Your task to perform on an android device: Open my contact list Image 0: 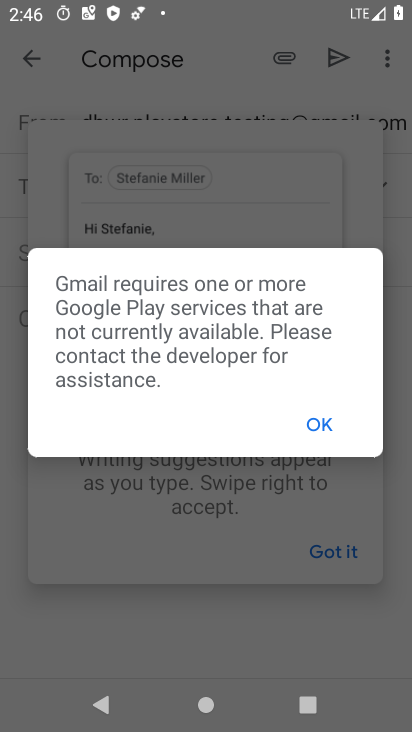
Step 0: click (309, 423)
Your task to perform on an android device: Open my contact list Image 1: 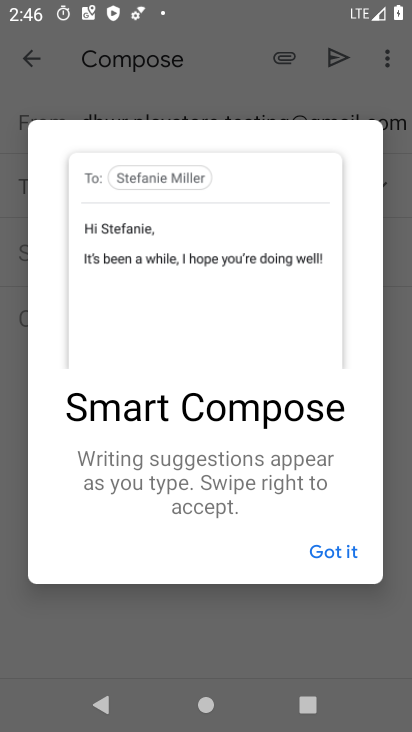
Step 1: click (327, 536)
Your task to perform on an android device: Open my contact list Image 2: 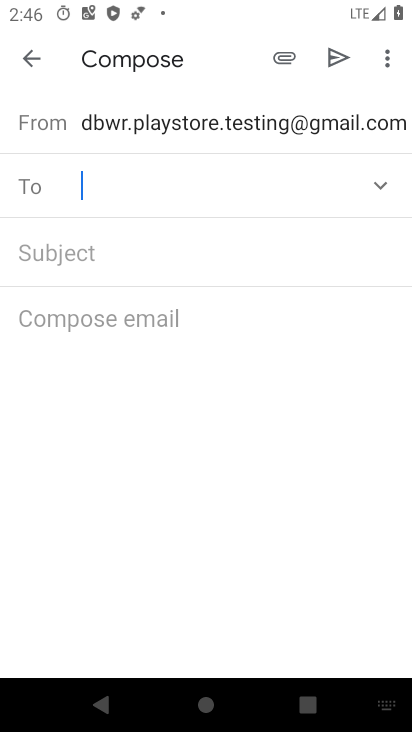
Step 2: click (34, 72)
Your task to perform on an android device: Open my contact list Image 3: 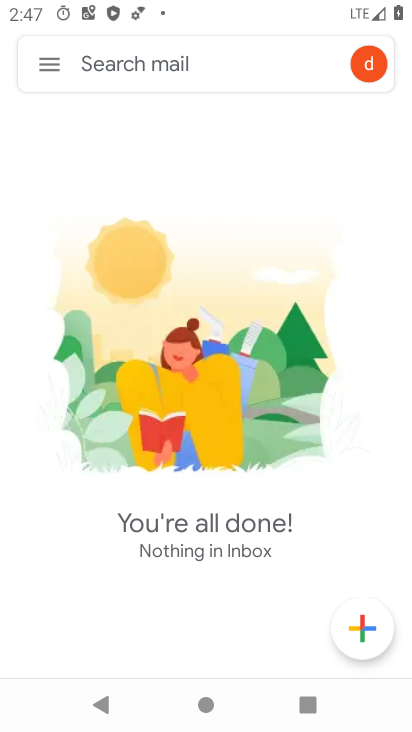
Step 3: press home button
Your task to perform on an android device: Open my contact list Image 4: 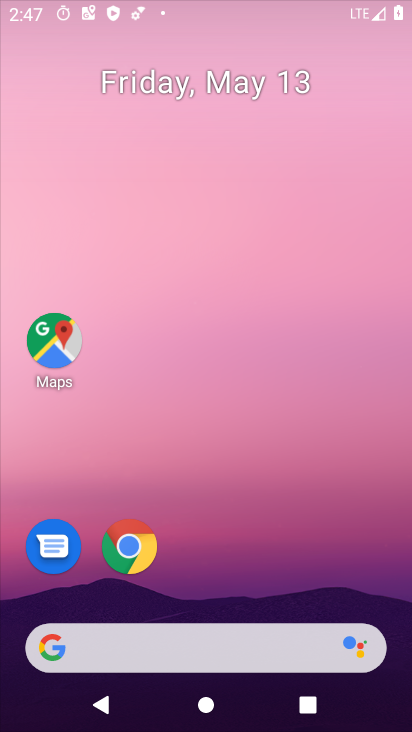
Step 4: drag from (234, 579) to (264, 137)
Your task to perform on an android device: Open my contact list Image 5: 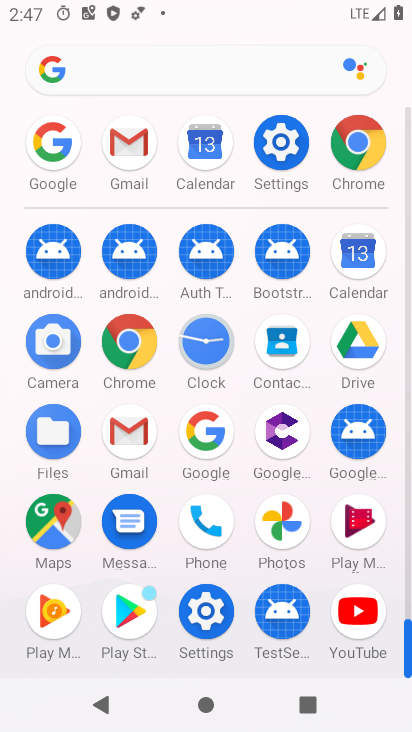
Step 5: click (291, 349)
Your task to perform on an android device: Open my contact list Image 6: 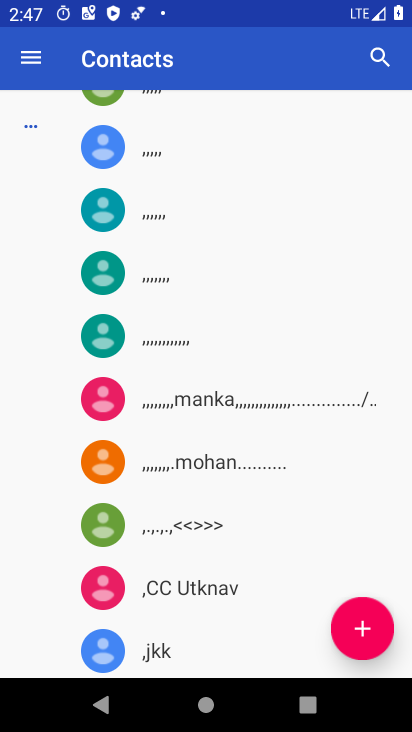
Step 6: task complete